Your task to perform on an android device: Open Chrome and go to settings Image 0: 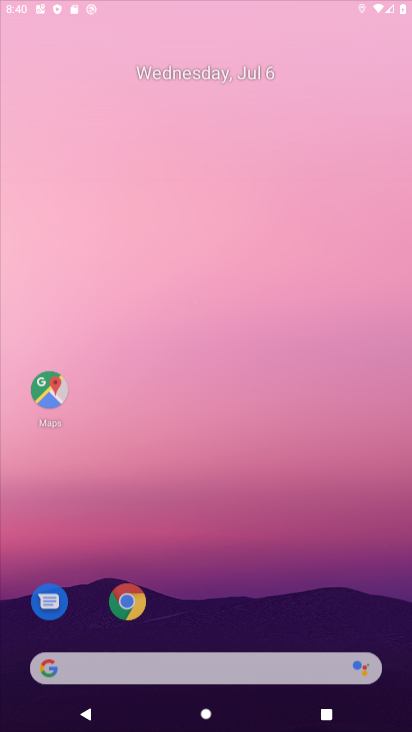
Step 0: click (132, 609)
Your task to perform on an android device: Open Chrome and go to settings Image 1: 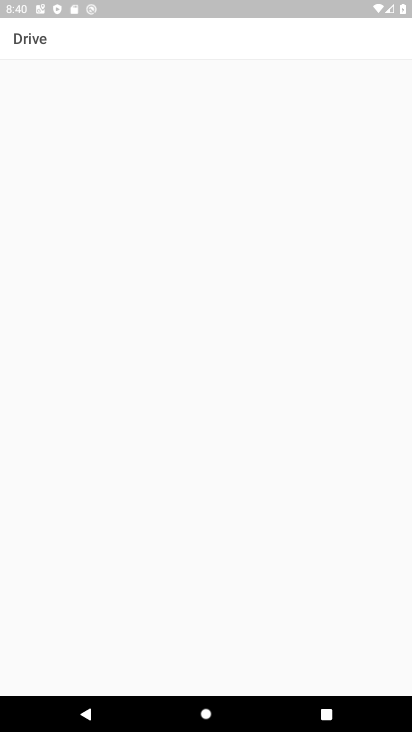
Step 1: click (134, 604)
Your task to perform on an android device: Open Chrome and go to settings Image 2: 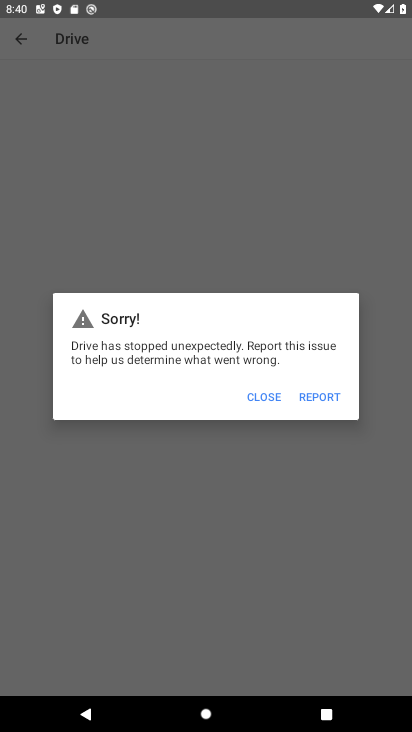
Step 2: press home button
Your task to perform on an android device: Open Chrome and go to settings Image 3: 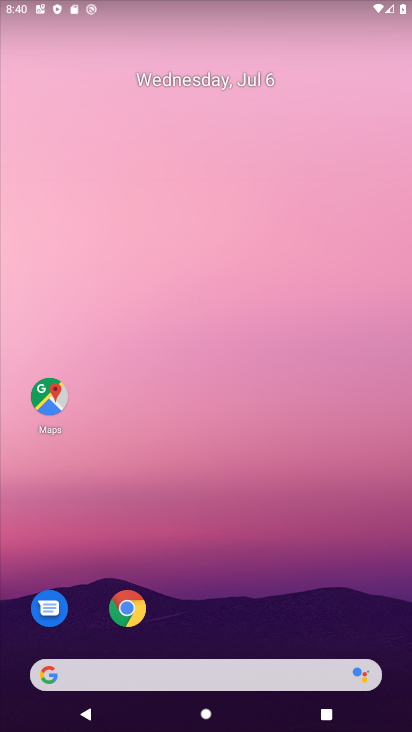
Step 3: drag from (174, 642) to (175, 273)
Your task to perform on an android device: Open Chrome and go to settings Image 4: 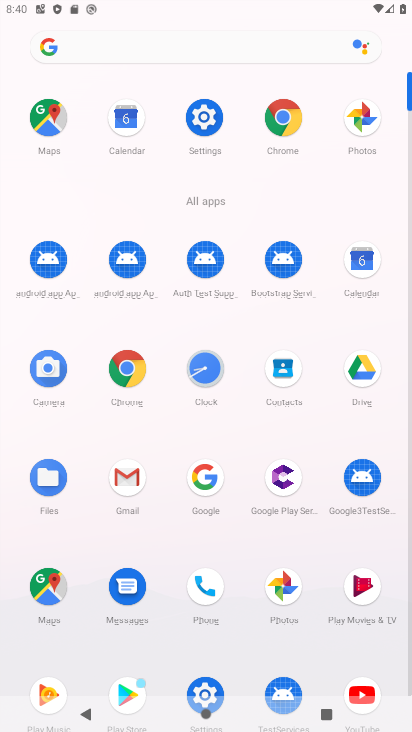
Step 4: click (289, 129)
Your task to perform on an android device: Open Chrome and go to settings Image 5: 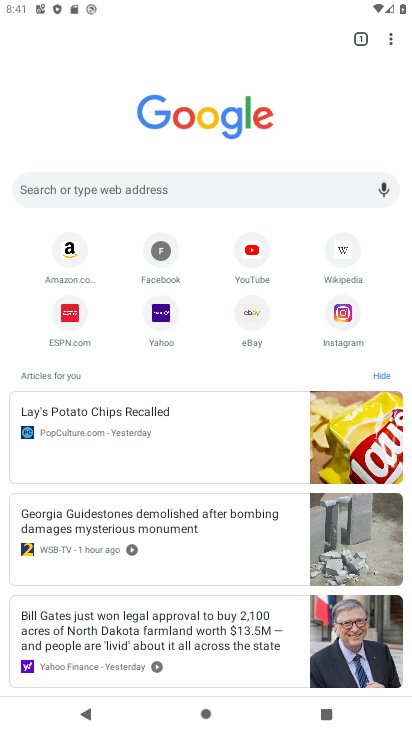
Step 5: click (390, 42)
Your task to perform on an android device: Open Chrome and go to settings Image 6: 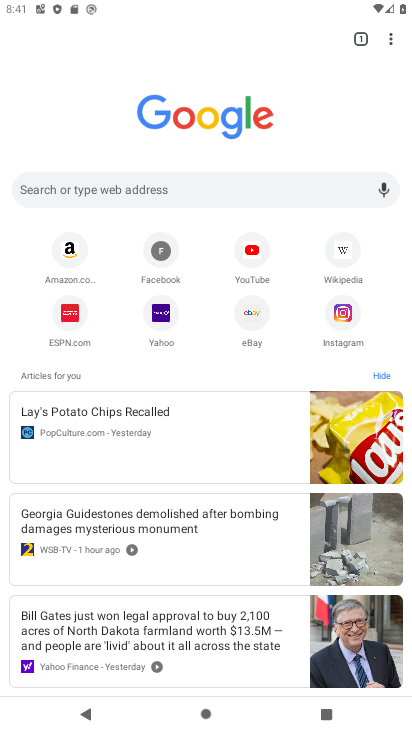
Step 6: click (390, 30)
Your task to perform on an android device: Open Chrome and go to settings Image 7: 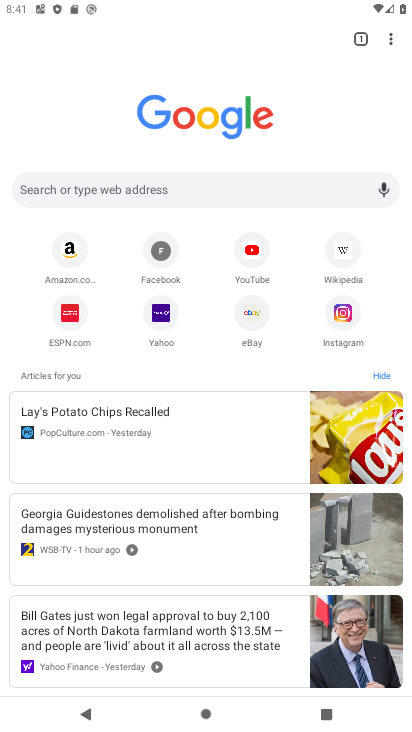
Step 7: click (390, 30)
Your task to perform on an android device: Open Chrome and go to settings Image 8: 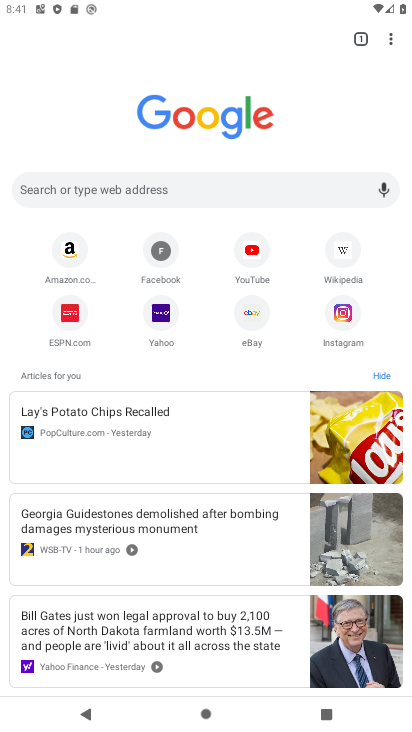
Step 8: click (391, 37)
Your task to perform on an android device: Open Chrome and go to settings Image 9: 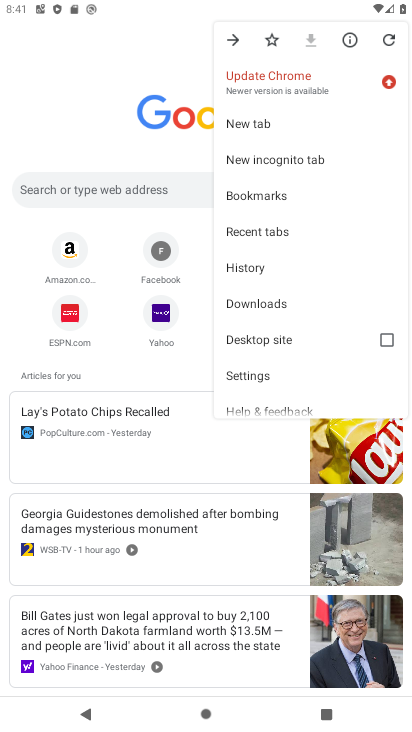
Step 9: click (271, 374)
Your task to perform on an android device: Open Chrome and go to settings Image 10: 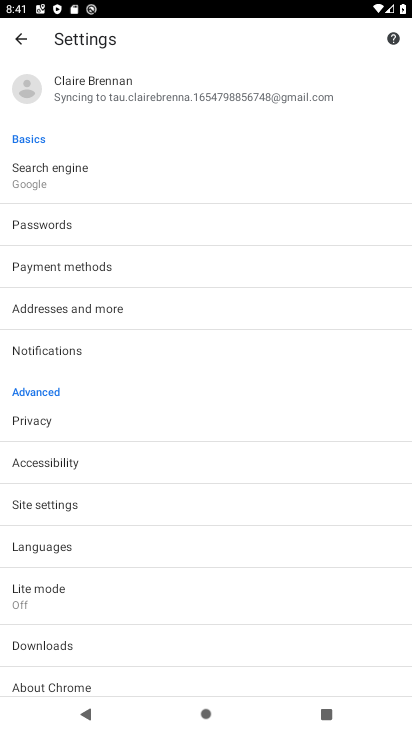
Step 10: task complete